Your task to perform on an android device: delete the emails in spam in the gmail app Image 0: 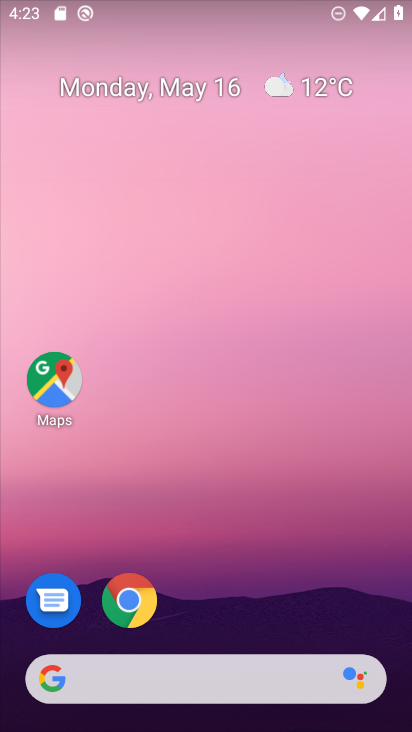
Step 0: drag from (278, 605) to (233, 148)
Your task to perform on an android device: delete the emails in spam in the gmail app Image 1: 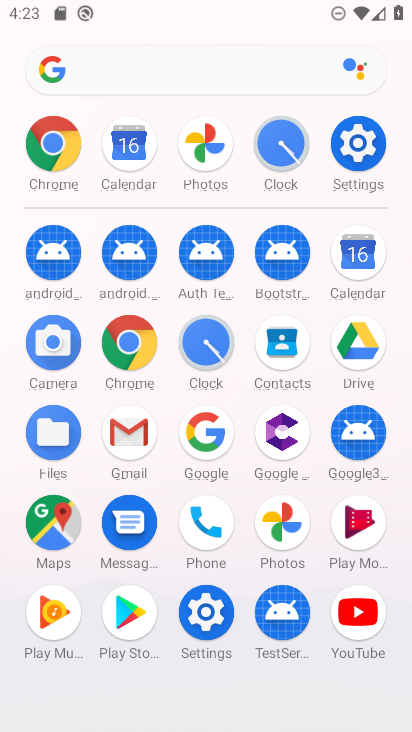
Step 1: click (121, 429)
Your task to perform on an android device: delete the emails in spam in the gmail app Image 2: 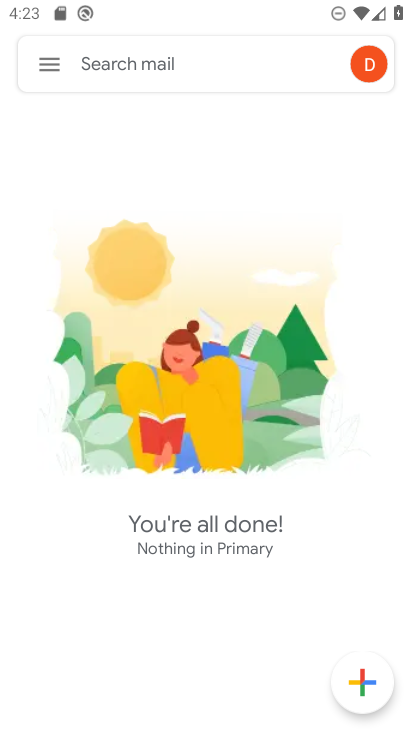
Step 2: click (48, 58)
Your task to perform on an android device: delete the emails in spam in the gmail app Image 3: 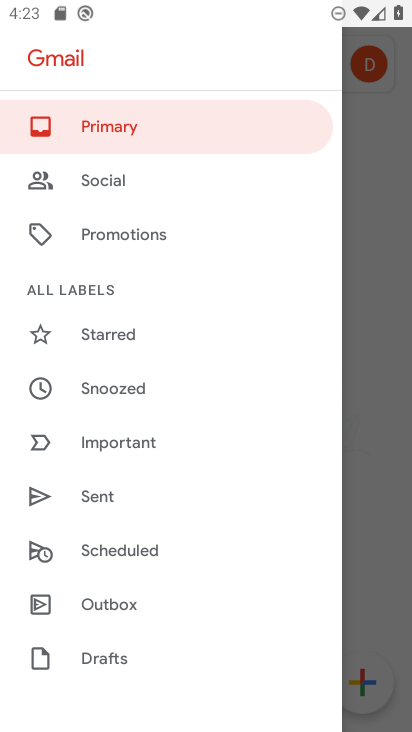
Step 3: drag from (175, 648) to (202, 116)
Your task to perform on an android device: delete the emails in spam in the gmail app Image 4: 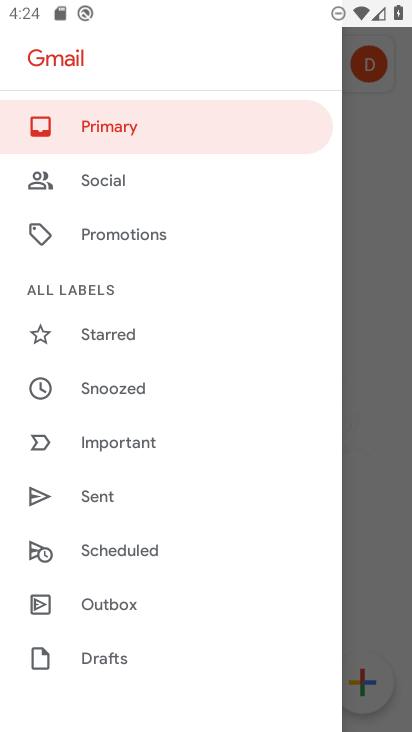
Step 4: drag from (77, 609) to (216, 193)
Your task to perform on an android device: delete the emails in spam in the gmail app Image 5: 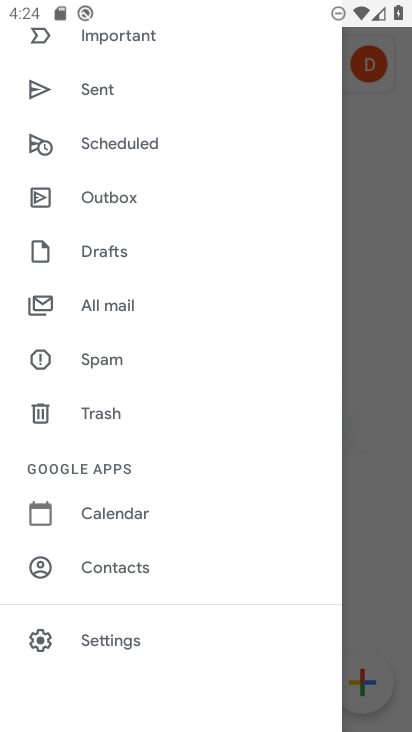
Step 5: click (105, 371)
Your task to perform on an android device: delete the emails in spam in the gmail app Image 6: 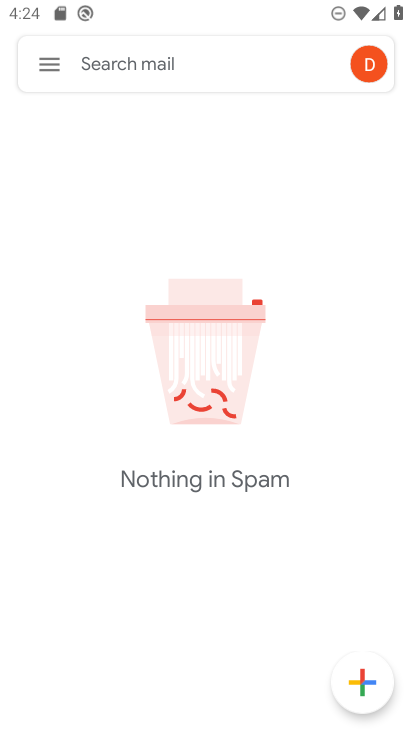
Step 6: task complete